Your task to perform on an android device: set an alarm Image 0: 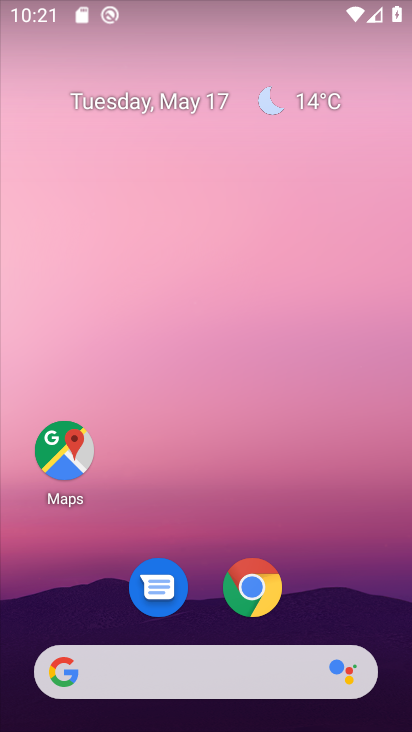
Step 0: drag from (329, 623) to (159, 73)
Your task to perform on an android device: set an alarm Image 1: 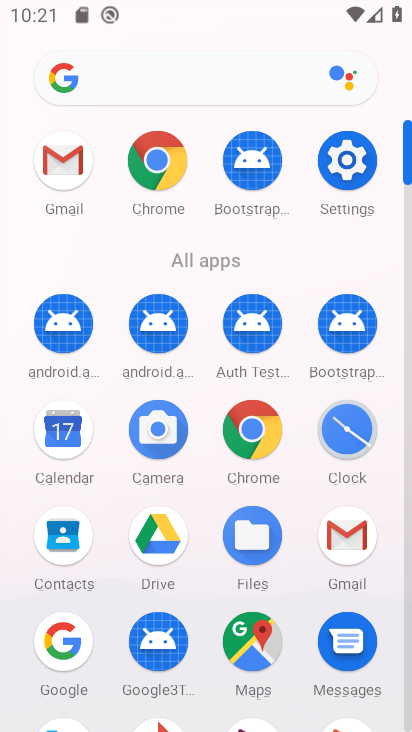
Step 1: click (348, 438)
Your task to perform on an android device: set an alarm Image 2: 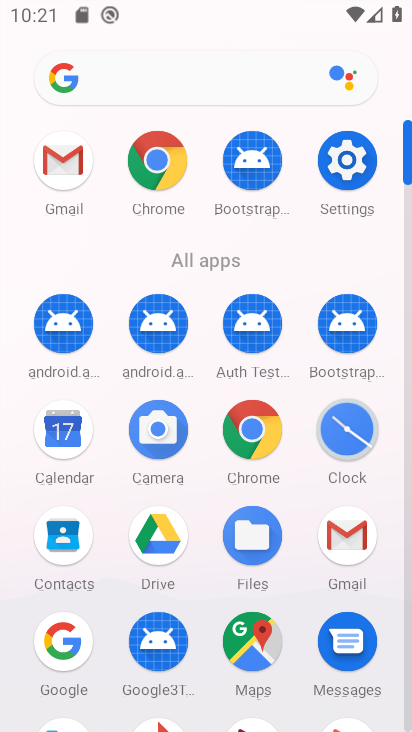
Step 2: click (349, 437)
Your task to perform on an android device: set an alarm Image 3: 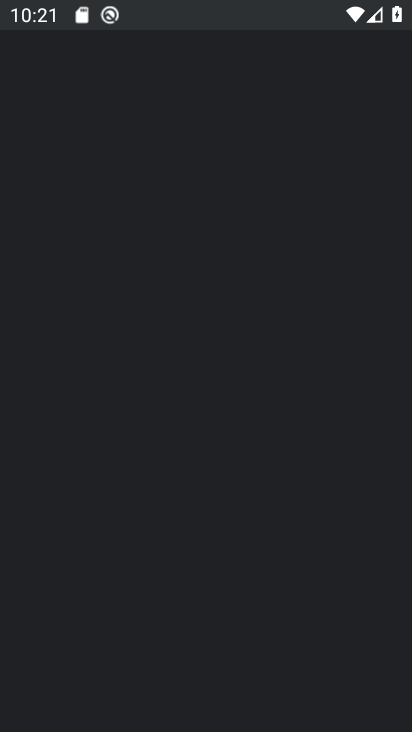
Step 3: click (357, 426)
Your task to perform on an android device: set an alarm Image 4: 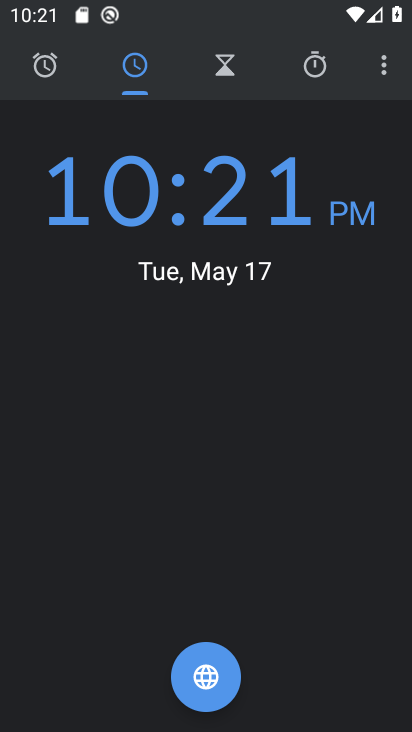
Step 4: click (48, 79)
Your task to perform on an android device: set an alarm Image 5: 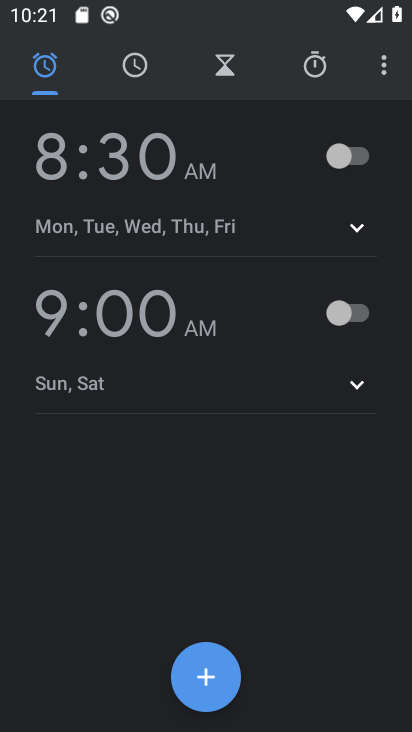
Step 5: click (336, 155)
Your task to perform on an android device: set an alarm Image 6: 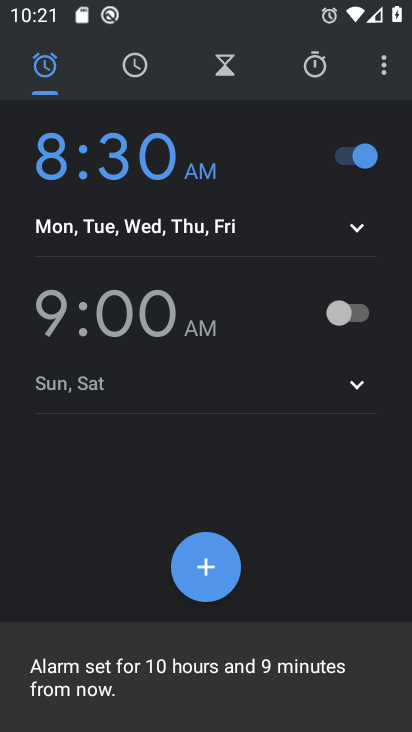
Step 6: task complete